Your task to perform on an android device: Open Google Maps and go to "Timeline" Image 0: 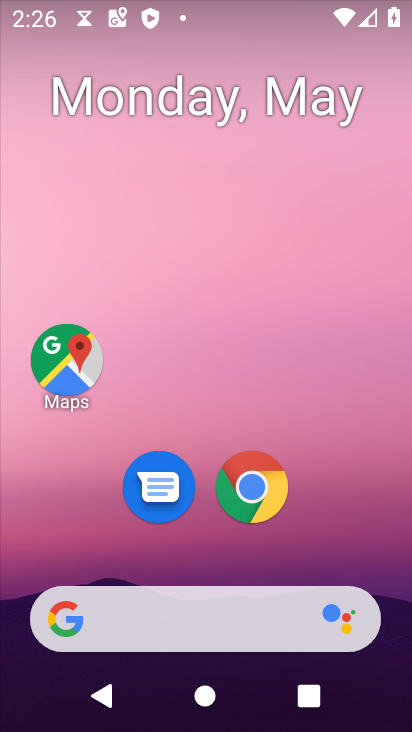
Step 0: click (67, 372)
Your task to perform on an android device: Open Google Maps and go to "Timeline" Image 1: 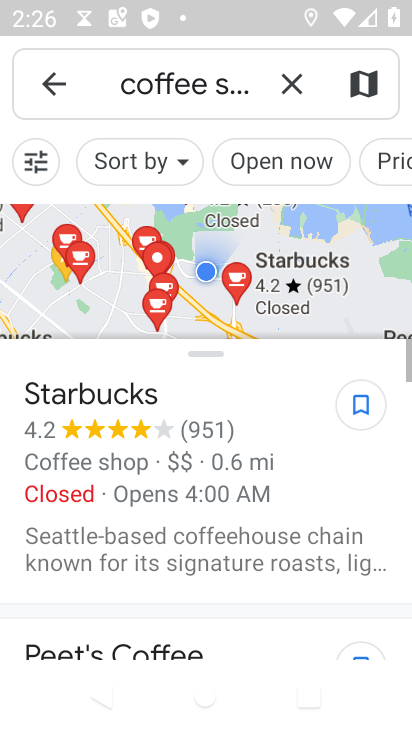
Step 1: click (59, 100)
Your task to perform on an android device: Open Google Maps and go to "Timeline" Image 2: 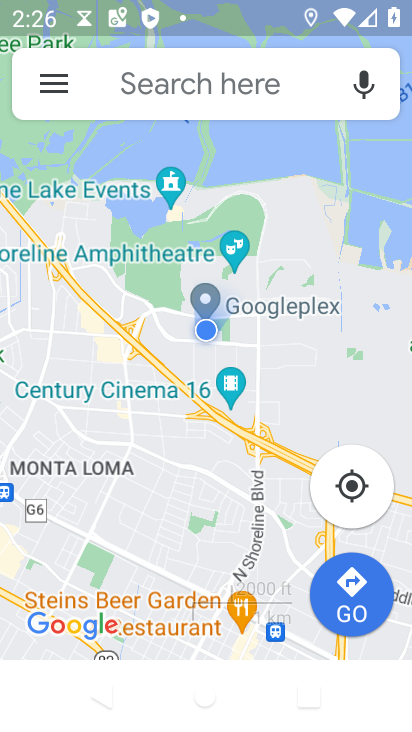
Step 2: click (59, 100)
Your task to perform on an android device: Open Google Maps and go to "Timeline" Image 3: 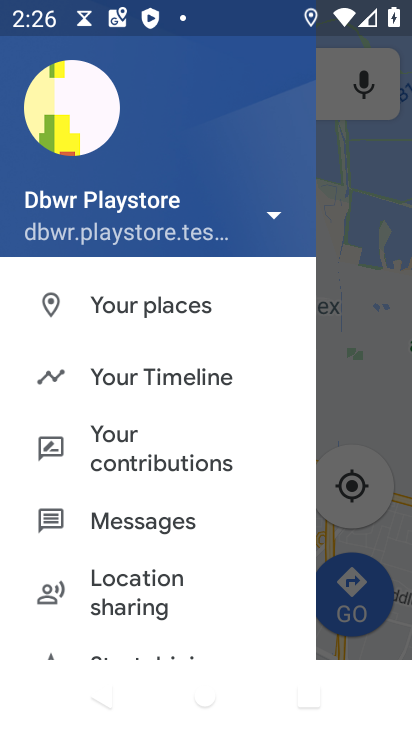
Step 3: click (153, 377)
Your task to perform on an android device: Open Google Maps and go to "Timeline" Image 4: 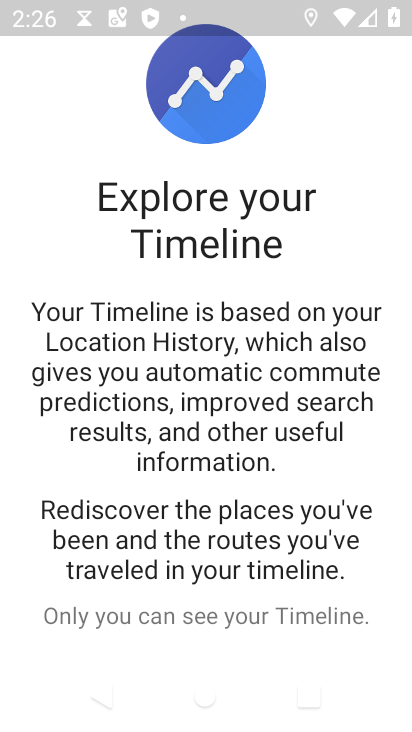
Step 4: drag from (232, 522) to (269, 204)
Your task to perform on an android device: Open Google Maps and go to "Timeline" Image 5: 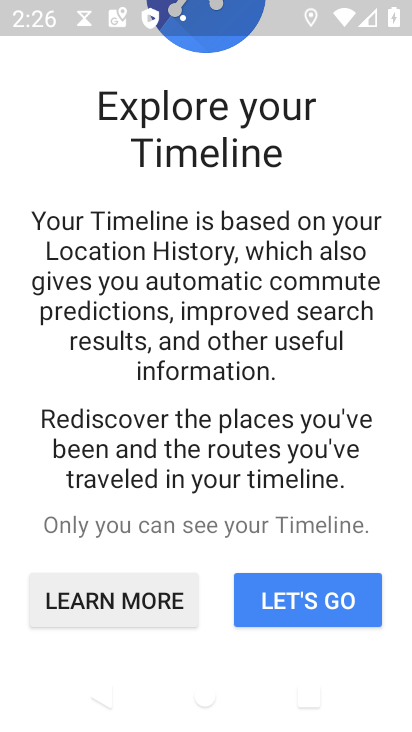
Step 5: click (311, 603)
Your task to perform on an android device: Open Google Maps and go to "Timeline" Image 6: 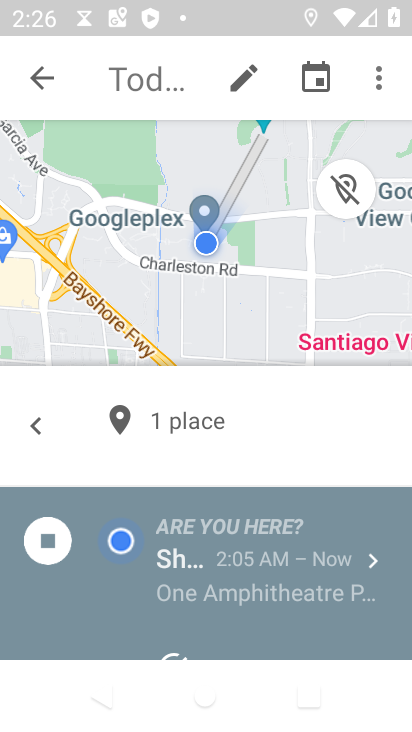
Step 6: task complete